Your task to perform on an android device: open app "Google News" Image 0: 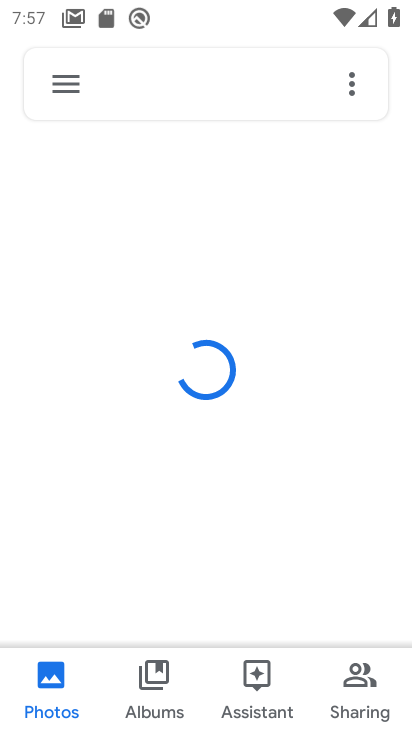
Step 0: press home button
Your task to perform on an android device: open app "Google News" Image 1: 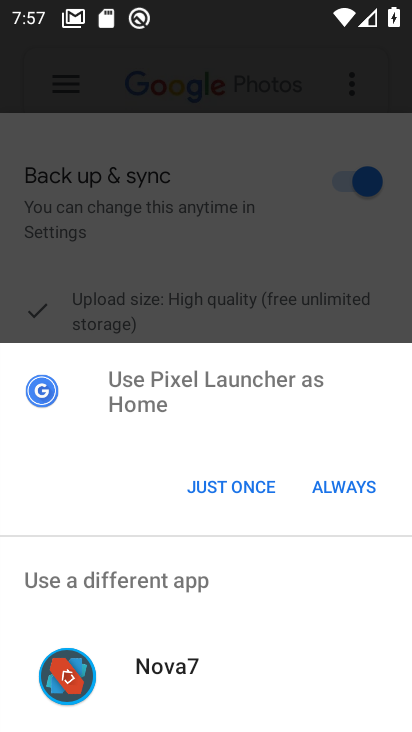
Step 1: click (361, 482)
Your task to perform on an android device: open app "Google News" Image 2: 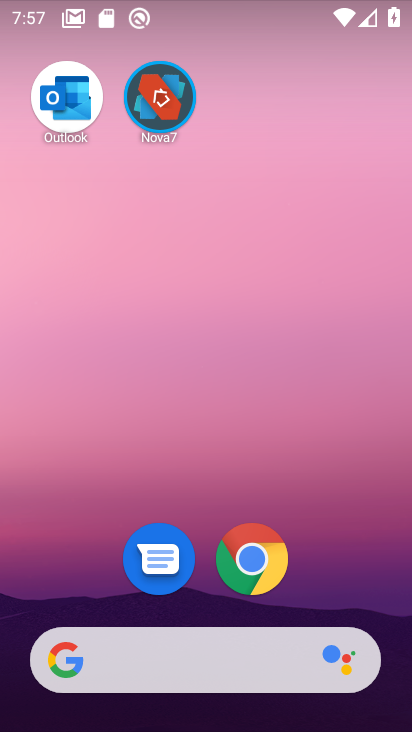
Step 2: drag from (211, 615) to (240, 0)
Your task to perform on an android device: open app "Google News" Image 3: 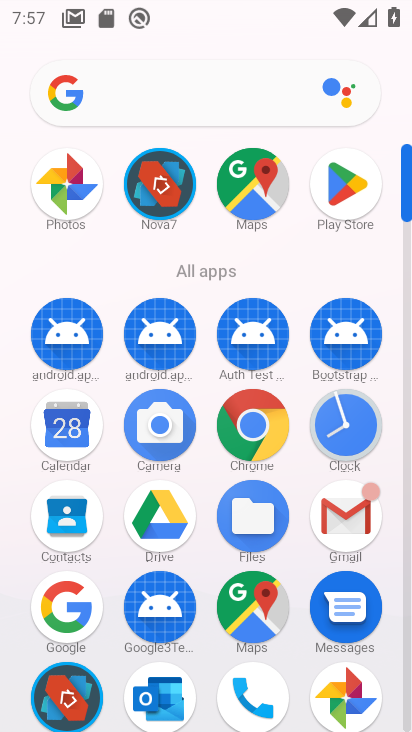
Step 3: drag from (109, 618) to (107, 429)
Your task to perform on an android device: open app "Google News" Image 4: 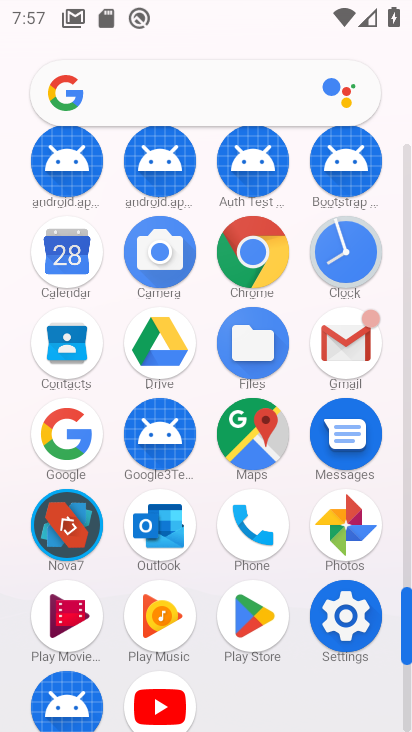
Step 4: click (263, 630)
Your task to perform on an android device: open app "Google News" Image 5: 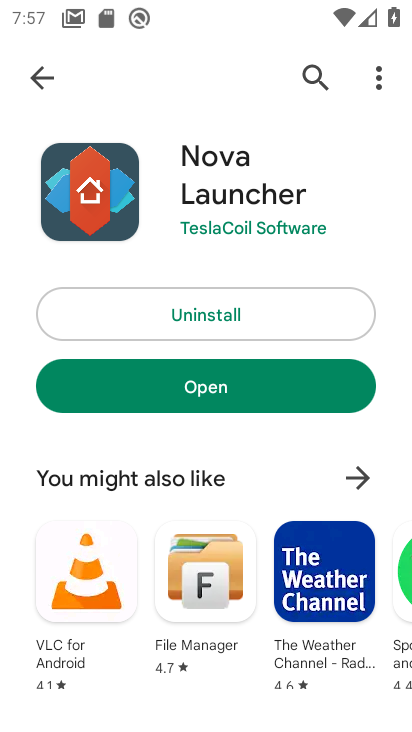
Step 5: click (40, 73)
Your task to perform on an android device: open app "Google News" Image 6: 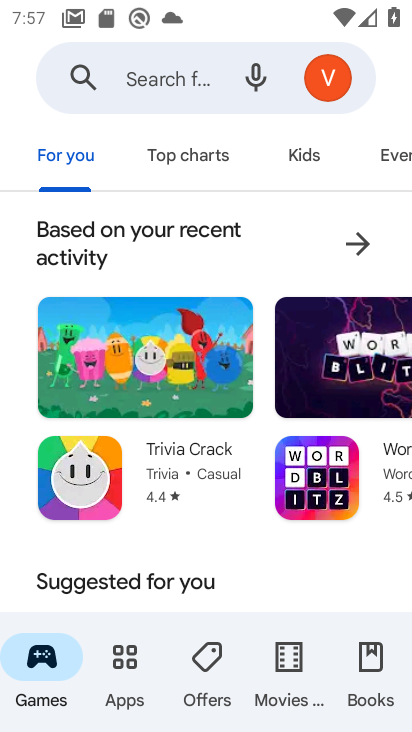
Step 6: click (151, 91)
Your task to perform on an android device: open app "Google News" Image 7: 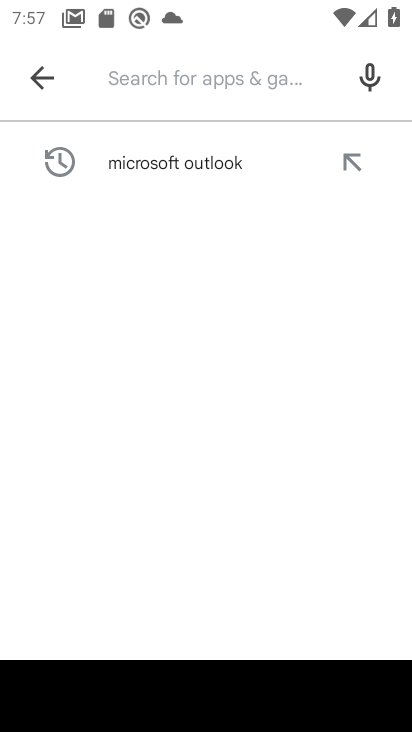
Step 7: type "google "
Your task to perform on an android device: open app "Google News" Image 8: 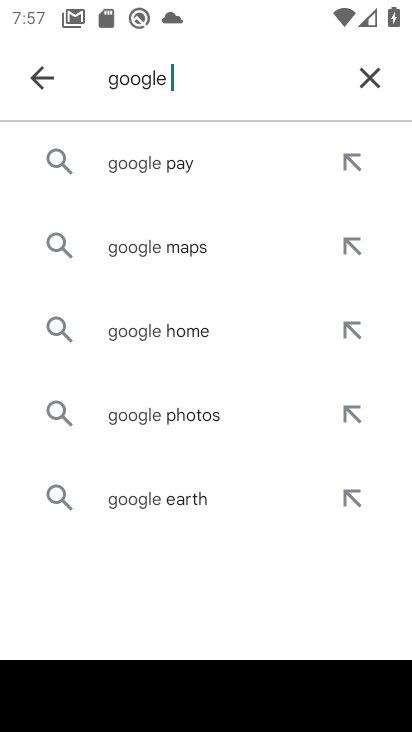
Step 8: type "news"
Your task to perform on an android device: open app "Google News" Image 9: 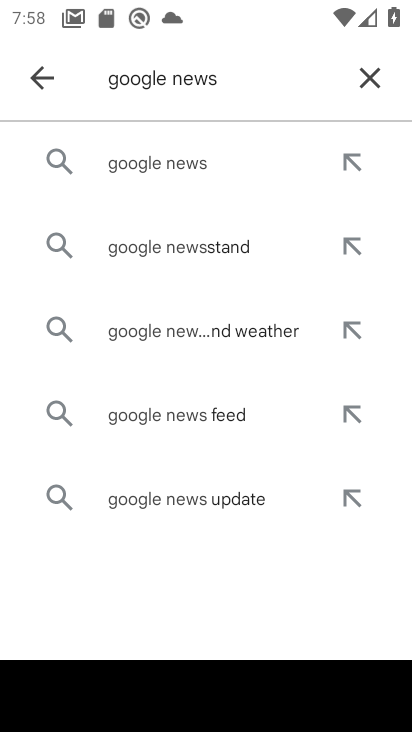
Step 9: click (153, 154)
Your task to perform on an android device: open app "Google News" Image 10: 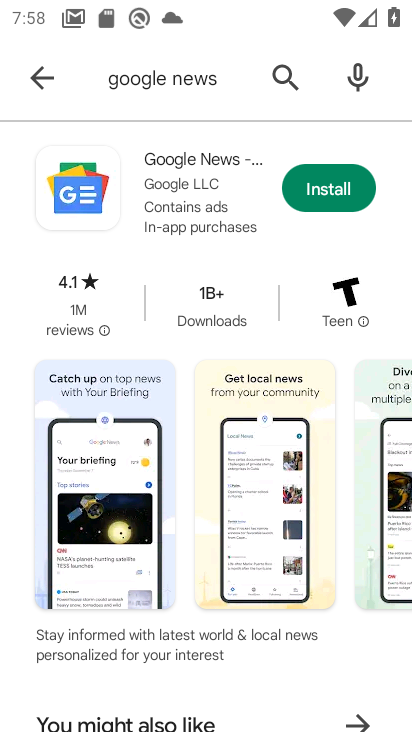
Step 10: click (356, 190)
Your task to perform on an android device: open app "Google News" Image 11: 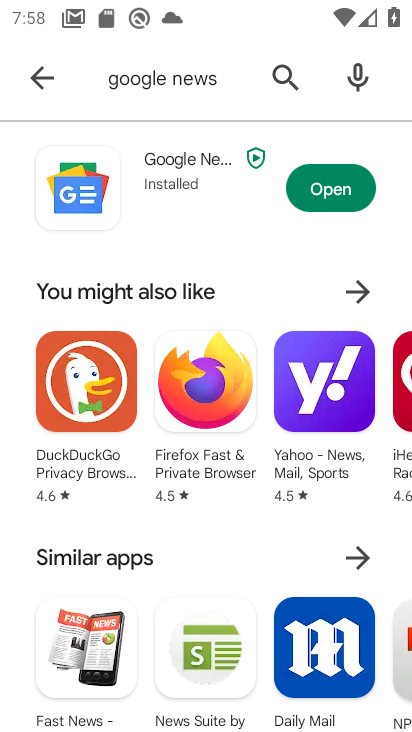
Step 11: click (353, 186)
Your task to perform on an android device: open app "Google News" Image 12: 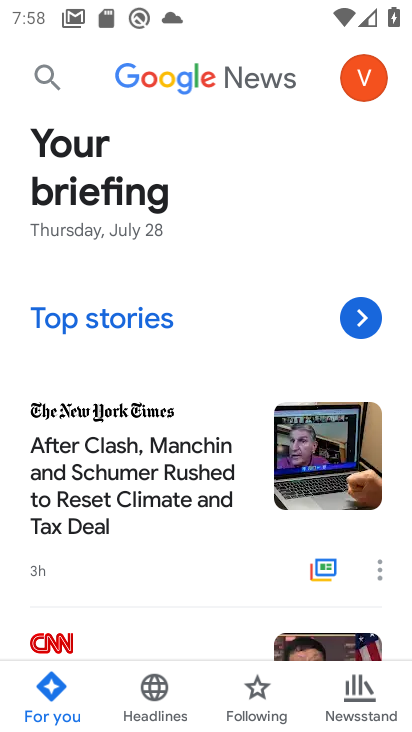
Step 12: task complete